Your task to perform on an android device: Turn on the flashlight Image 0: 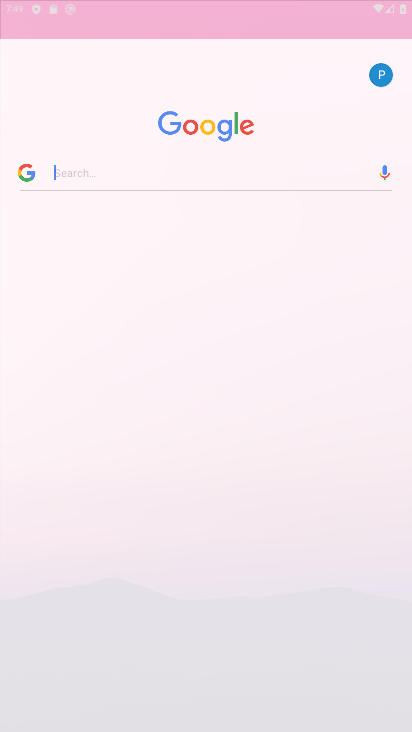
Step 0: click (171, 227)
Your task to perform on an android device: Turn on the flashlight Image 1: 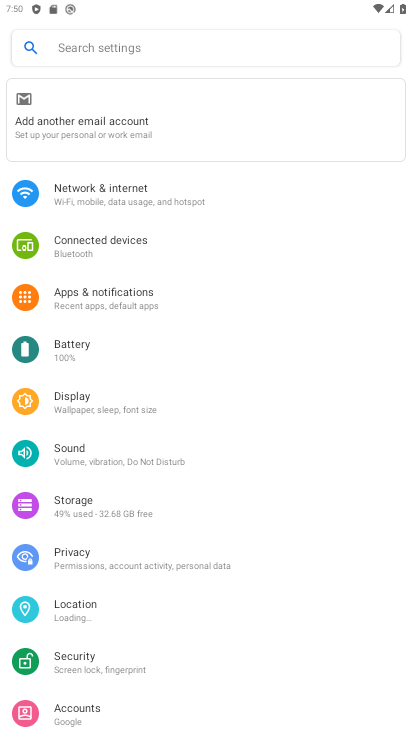
Step 1: drag from (177, 558) to (186, 356)
Your task to perform on an android device: Turn on the flashlight Image 2: 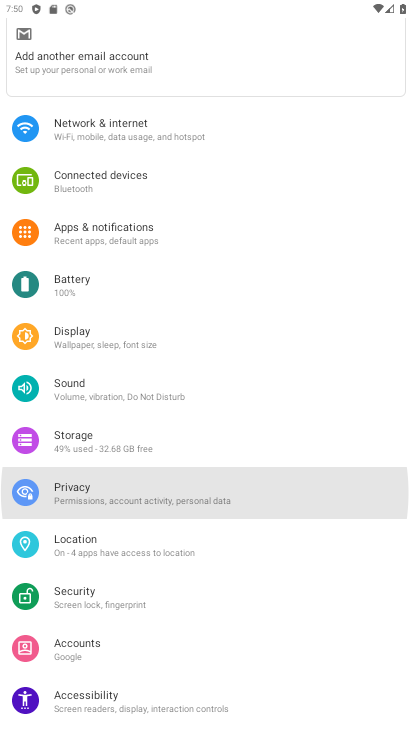
Step 2: drag from (195, 517) to (207, 168)
Your task to perform on an android device: Turn on the flashlight Image 3: 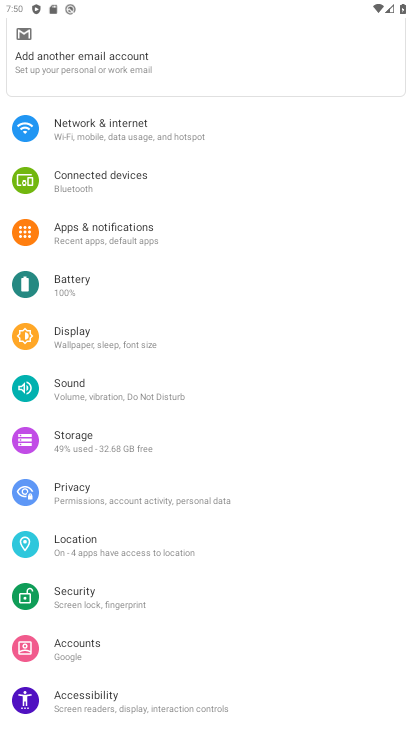
Step 3: drag from (210, 458) to (187, 138)
Your task to perform on an android device: Turn on the flashlight Image 4: 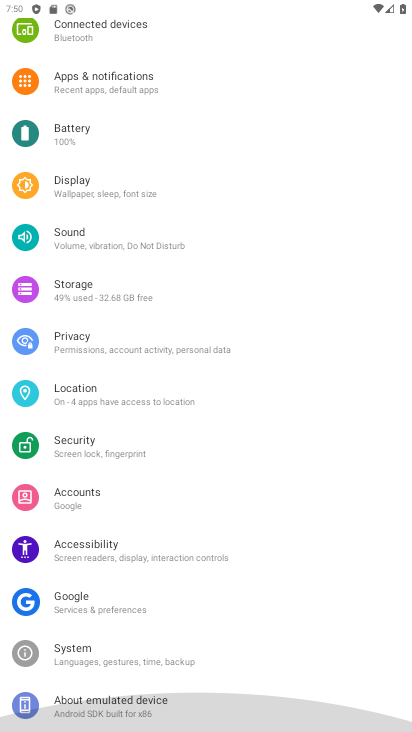
Step 4: drag from (210, 554) to (259, 156)
Your task to perform on an android device: Turn on the flashlight Image 5: 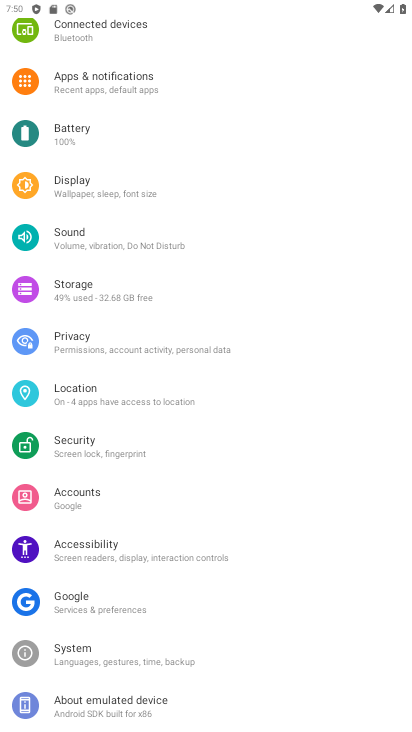
Step 5: drag from (227, 449) to (233, 173)
Your task to perform on an android device: Turn on the flashlight Image 6: 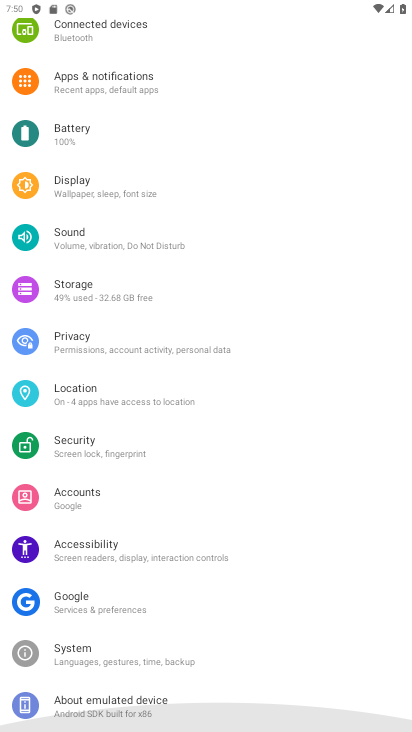
Step 6: drag from (216, 420) to (187, 162)
Your task to perform on an android device: Turn on the flashlight Image 7: 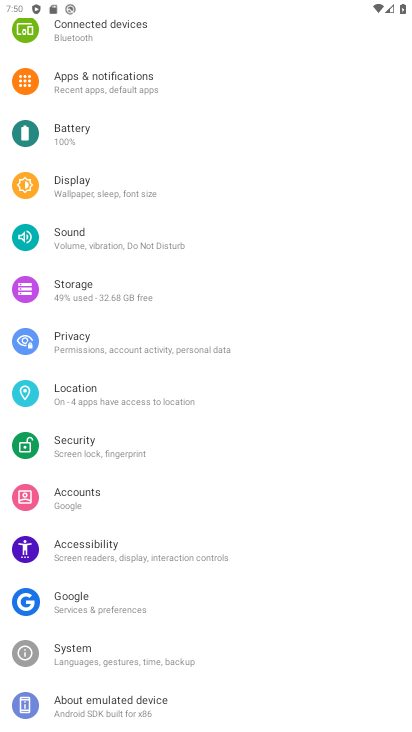
Step 7: drag from (148, 492) to (189, 105)
Your task to perform on an android device: Turn on the flashlight Image 8: 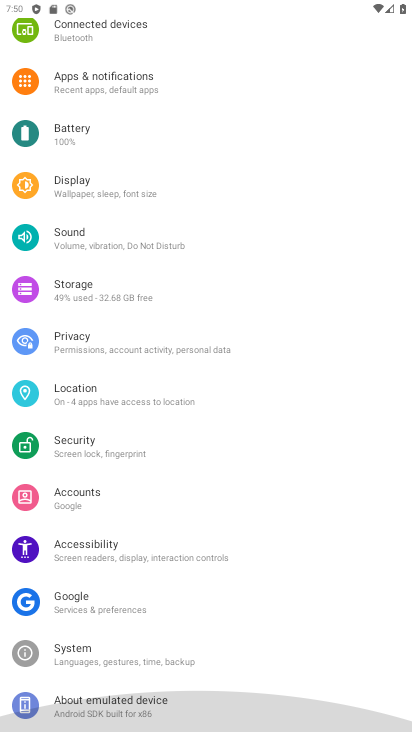
Step 8: drag from (224, 380) to (223, 198)
Your task to perform on an android device: Turn on the flashlight Image 9: 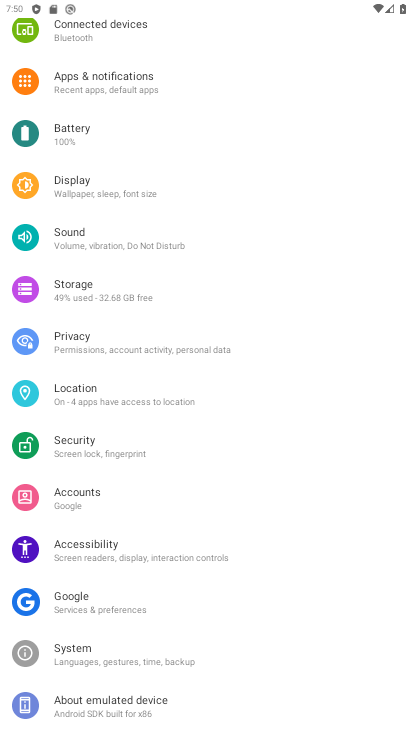
Step 9: drag from (216, 455) to (219, 129)
Your task to perform on an android device: Turn on the flashlight Image 10: 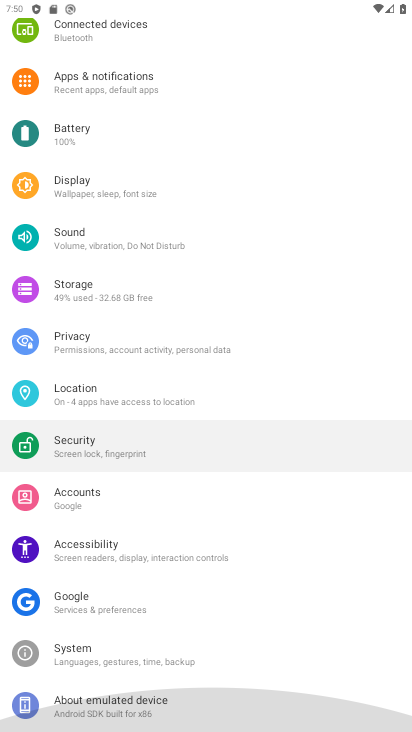
Step 10: drag from (205, 379) to (235, 216)
Your task to perform on an android device: Turn on the flashlight Image 11: 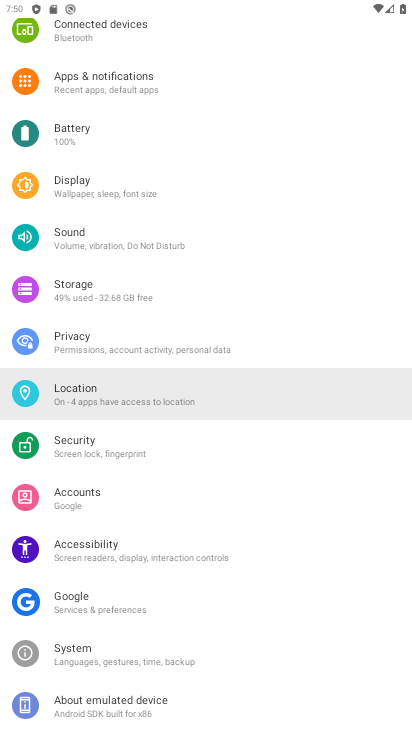
Step 11: drag from (217, 390) to (240, 268)
Your task to perform on an android device: Turn on the flashlight Image 12: 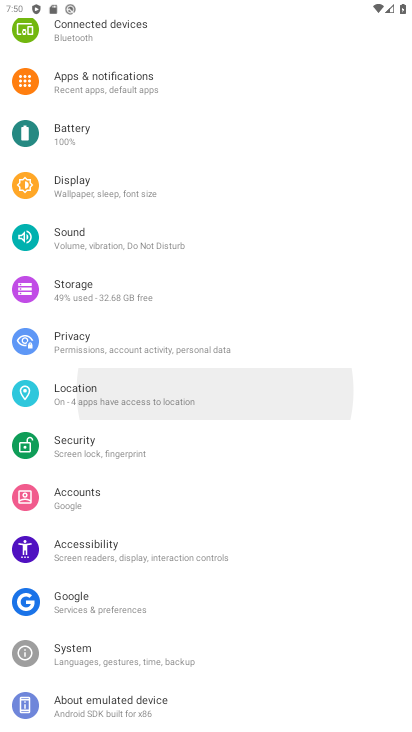
Step 12: drag from (213, 512) to (171, 187)
Your task to perform on an android device: Turn on the flashlight Image 13: 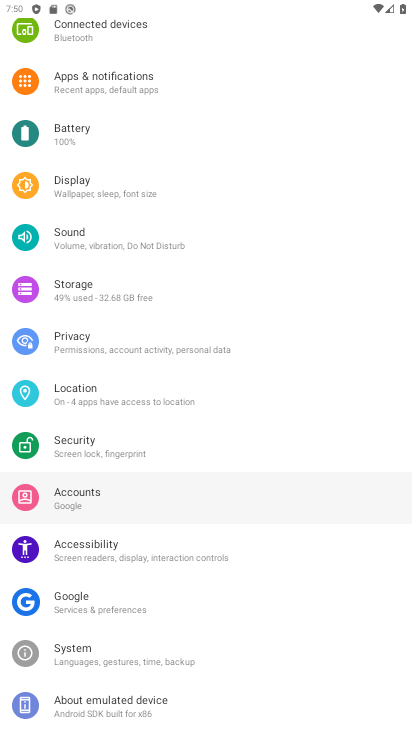
Step 13: drag from (176, 472) to (180, 218)
Your task to perform on an android device: Turn on the flashlight Image 14: 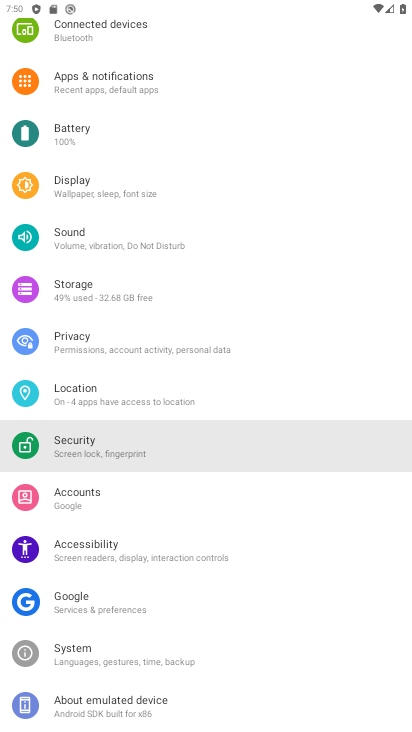
Step 14: drag from (197, 397) to (142, 125)
Your task to perform on an android device: Turn on the flashlight Image 15: 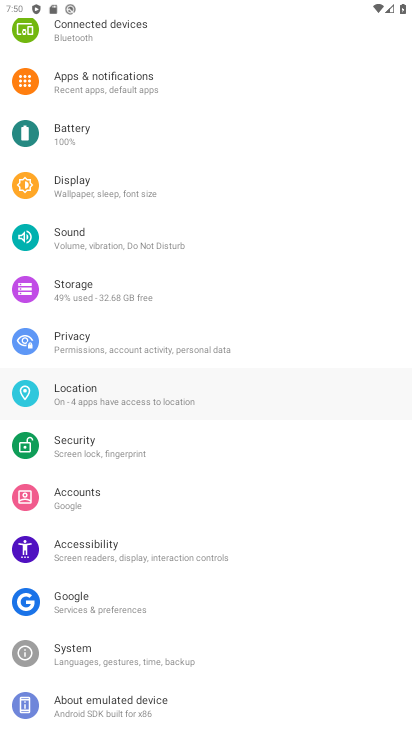
Step 15: click (135, 243)
Your task to perform on an android device: Turn on the flashlight Image 16: 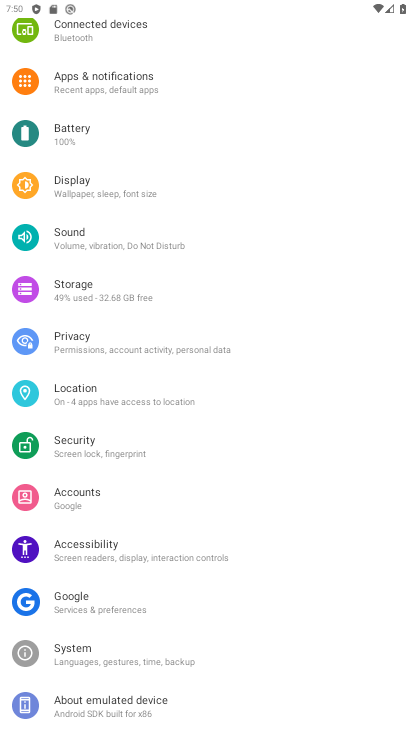
Step 16: drag from (146, 468) to (97, 178)
Your task to perform on an android device: Turn on the flashlight Image 17: 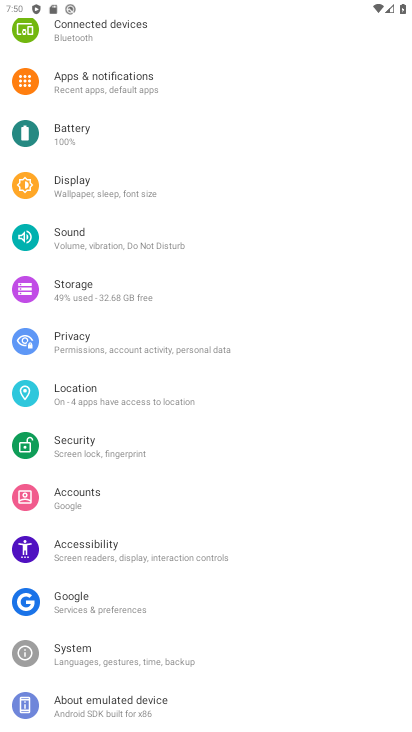
Step 17: drag from (154, 547) to (242, 164)
Your task to perform on an android device: Turn on the flashlight Image 18: 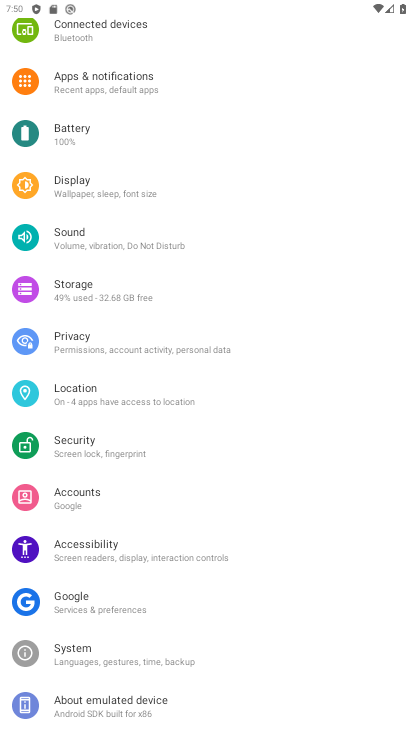
Step 18: drag from (224, 563) to (272, 171)
Your task to perform on an android device: Turn on the flashlight Image 19: 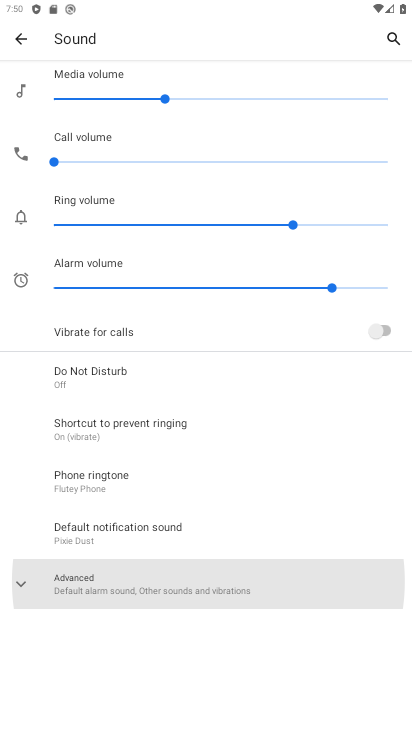
Step 19: click (269, 148)
Your task to perform on an android device: Turn on the flashlight Image 20: 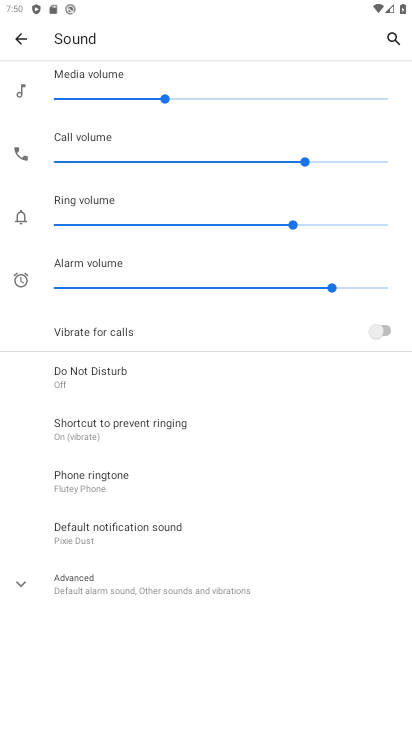
Step 20: click (18, 35)
Your task to perform on an android device: Turn on the flashlight Image 21: 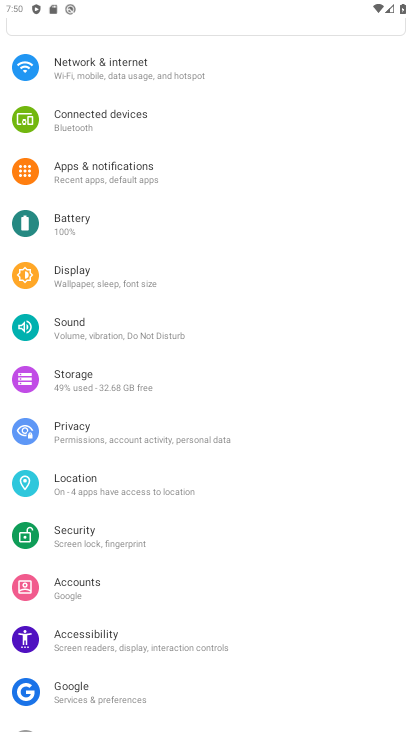
Step 21: click (209, 121)
Your task to perform on an android device: Turn on the flashlight Image 22: 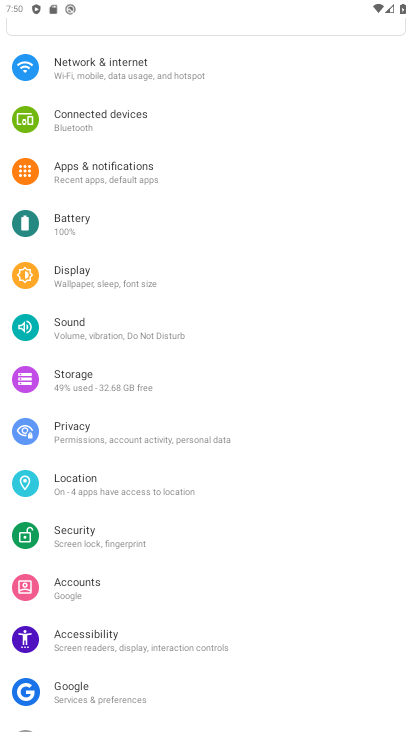
Step 22: drag from (191, 411) to (167, 97)
Your task to perform on an android device: Turn on the flashlight Image 23: 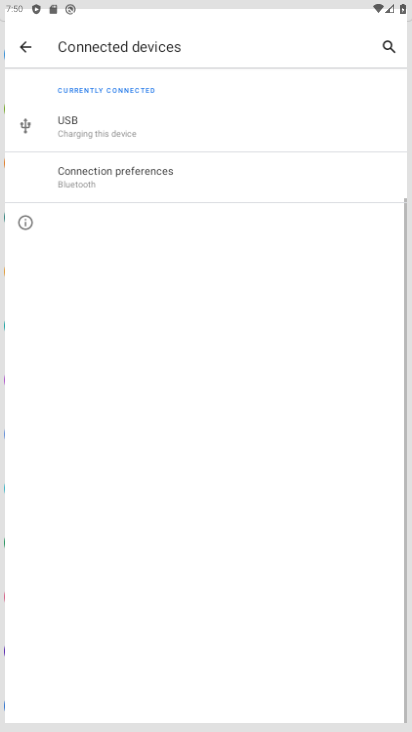
Step 23: drag from (184, 544) to (175, 388)
Your task to perform on an android device: Turn on the flashlight Image 24: 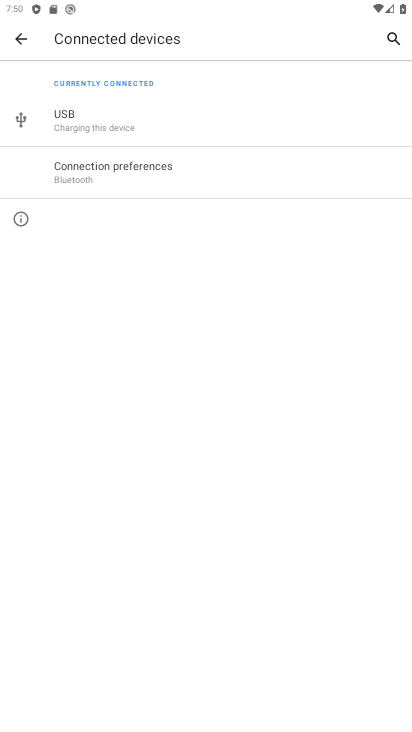
Step 24: click (20, 45)
Your task to perform on an android device: Turn on the flashlight Image 25: 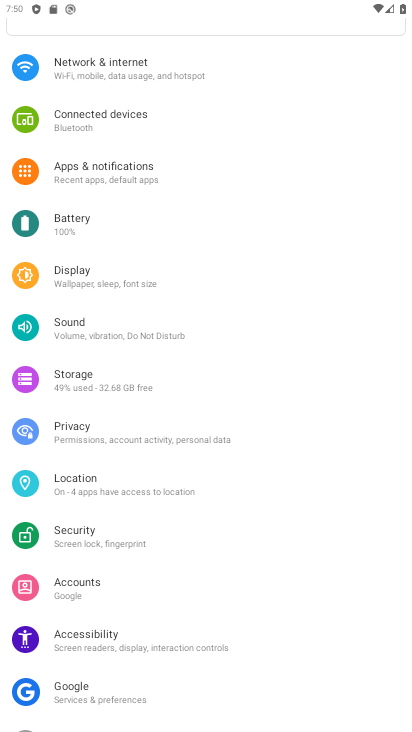
Step 25: task complete